Your task to perform on an android device: When is my next appointment? Image 0: 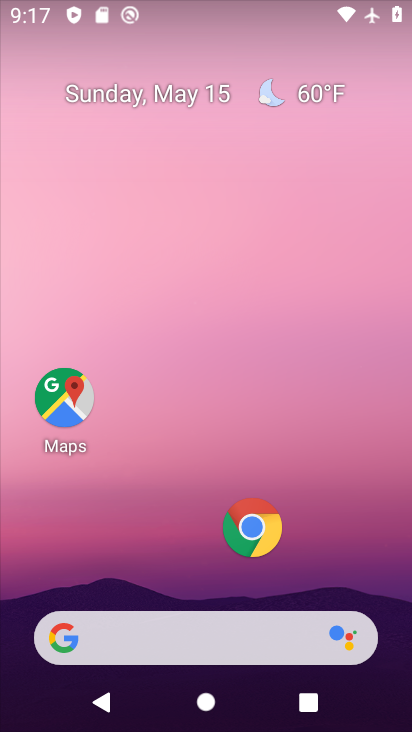
Step 0: drag from (200, 584) to (199, 113)
Your task to perform on an android device: When is my next appointment? Image 1: 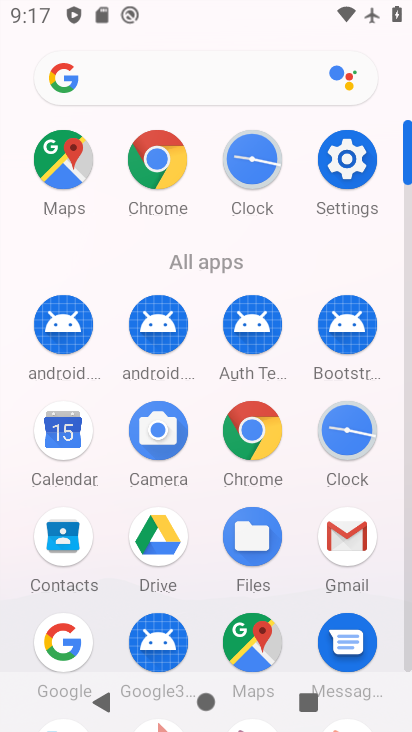
Step 1: click (62, 425)
Your task to perform on an android device: When is my next appointment? Image 2: 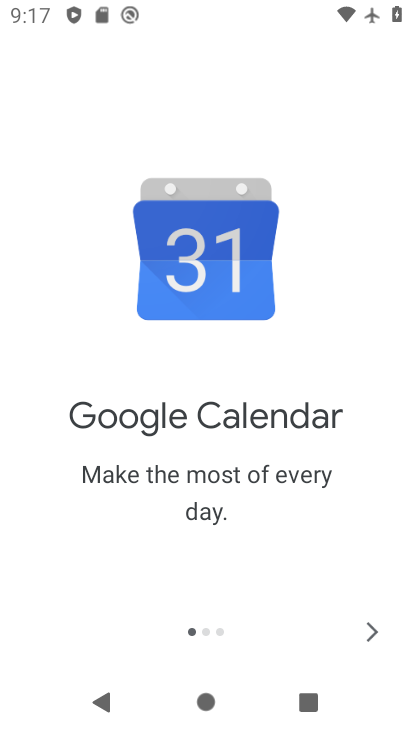
Step 2: click (375, 626)
Your task to perform on an android device: When is my next appointment? Image 3: 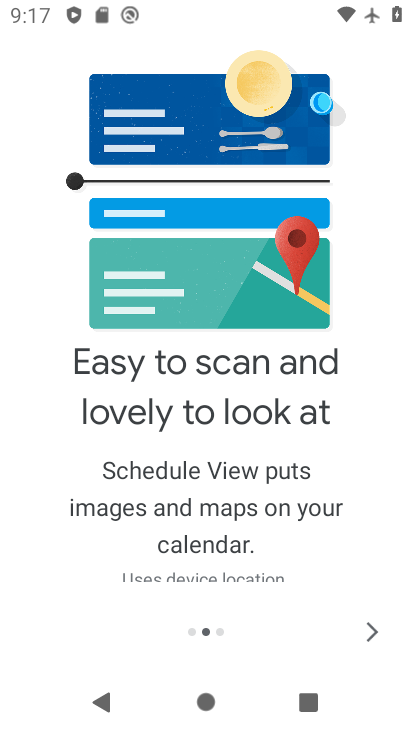
Step 3: click (375, 626)
Your task to perform on an android device: When is my next appointment? Image 4: 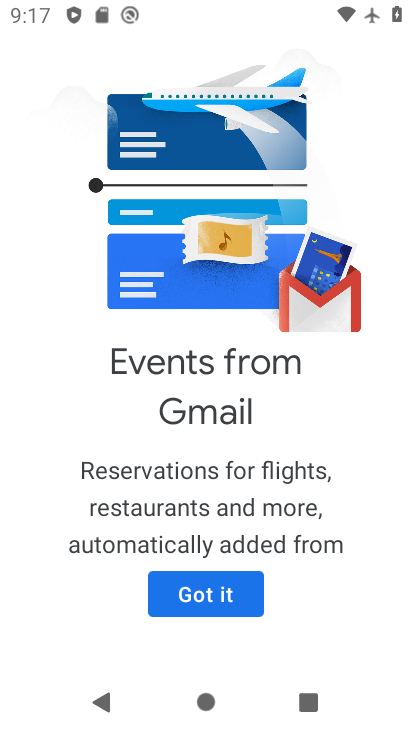
Step 4: click (213, 594)
Your task to perform on an android device: When is my next appointment? Image 5: 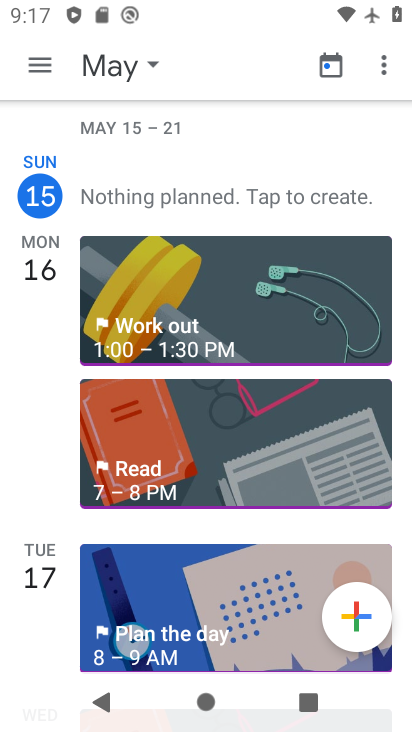
Step 5: click (37, 54)
Your task to perform on an android device: When is my next appointment? Image 6: 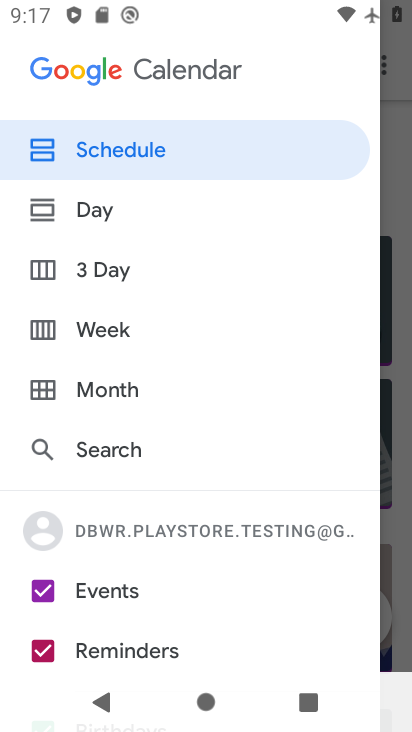
Step 6: drag from (106, 605) to (111, 161)
Your task to perform on an android device: When is my next appointment? Image 7: 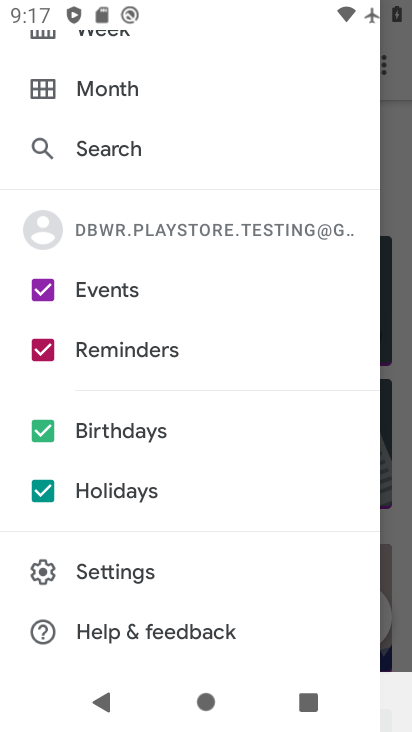
Step 7: drag from (126, 146) to (141, 695)
Your task to perform on an android device: When is my next appointment? Image 8: 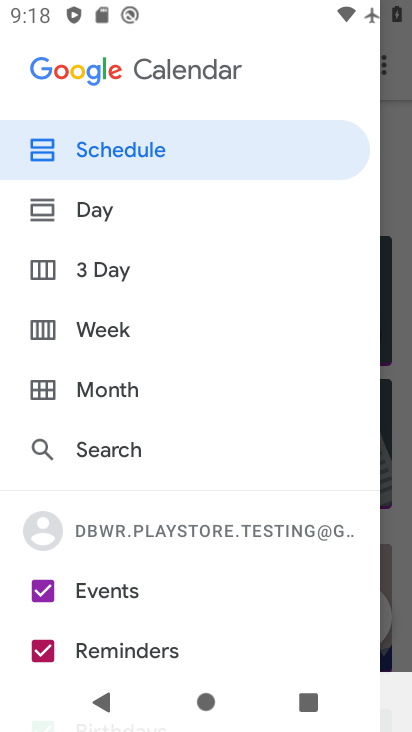
Step 8: click (101, 148)
Your task to perform on an android device: When is my next appointment? Image 9: 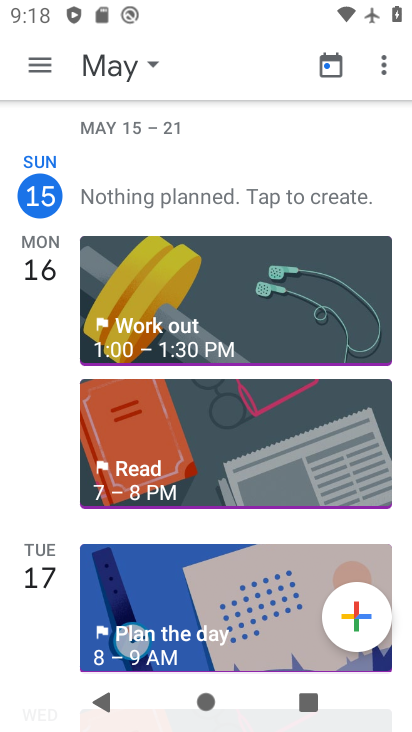
Step 9: task complete